Your task to perform on an android device: open sync settings in chrome Image 0: 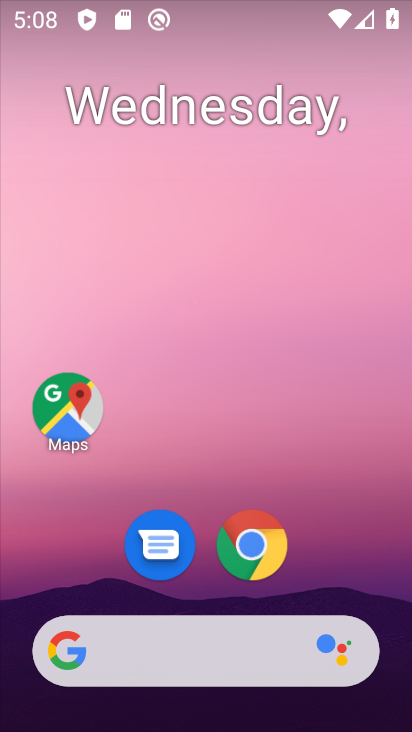
Step 0: click (251, 551)
Your task to perform on an android device: open sync settings in chrome Image 1: 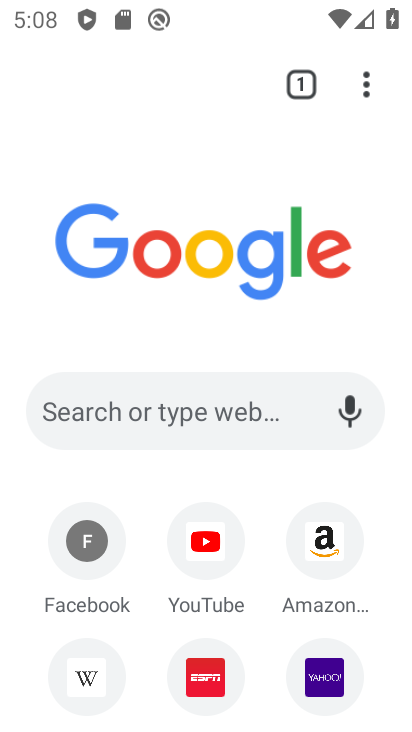
Step 1: drag from (368, 86) to (97, 600)
Your task to perform on an android device: open sync settings in chrome Image 2: 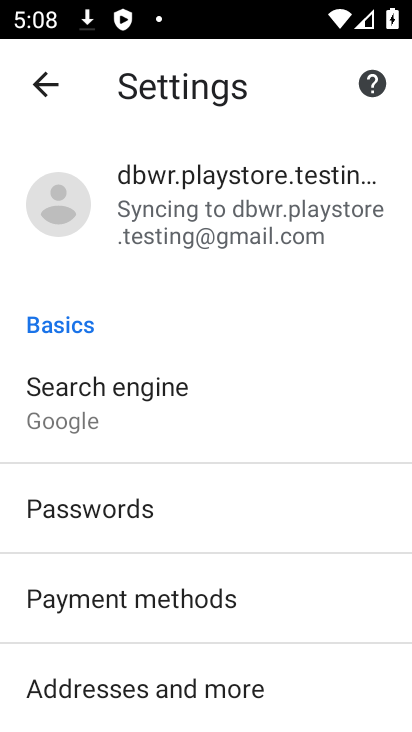
Step 2: click (204, 197)
Your task to perform on an android device: open sync settings in chrome Image 3: 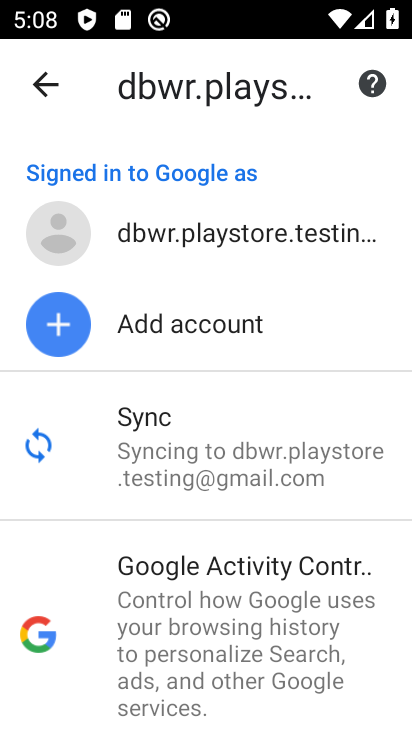
Step 3: task complete